Your task to perform on an android device: Go to accessibility settings Image 0: 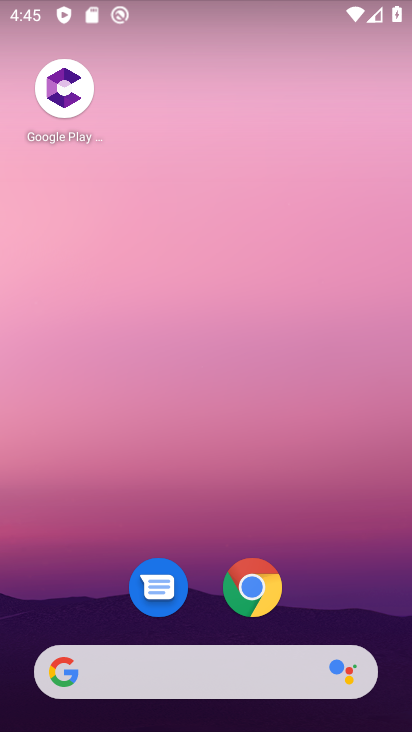
Step 0: drag from (353, 586) to (246, 15)
Your task to perform on an android device: Go to accessibility settings Image 1: 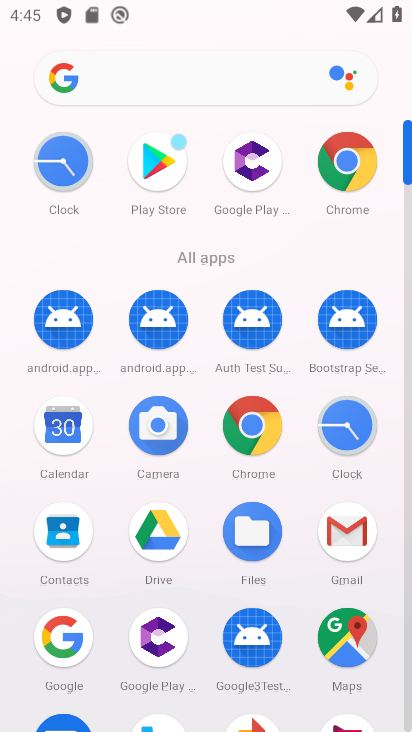
Step 1: drag from (15, 579) to (15, 283)
Your task to perform on an android device: Go to accessibility settings Image 2: 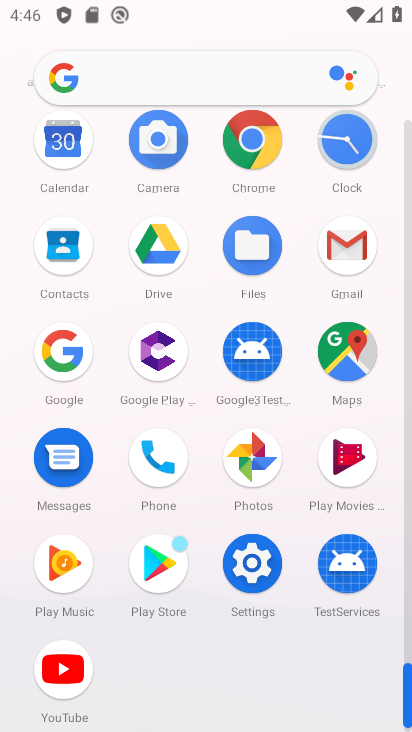
Step 2: click (252, 561)
Your task to perform on an android device: Go to accessibility settings Image 3: 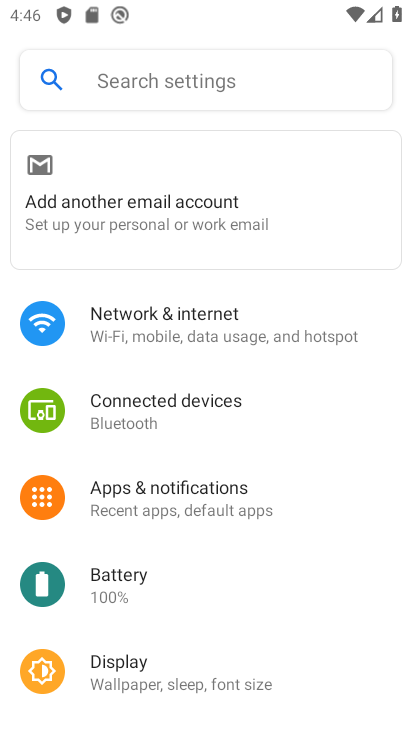
Step 3: drag from (281, 563) to (300, 227)
Your task to perform on an android device: Go to accessibility settings Image 4: 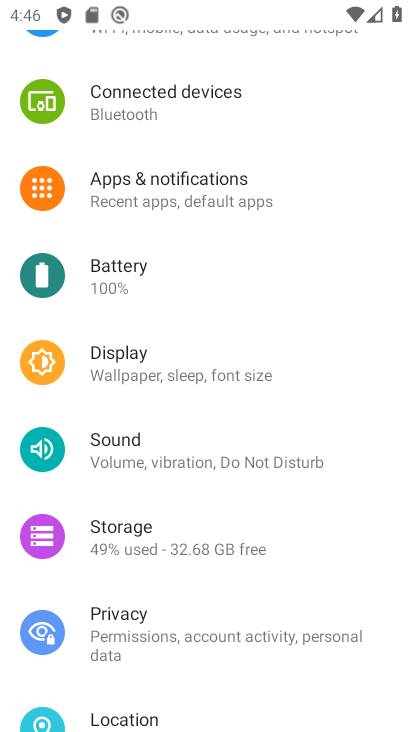
Step 4: drag from (258, 566) to (293, 192)
Your task to perform on an android device: Go to accessibility settings Image 5: 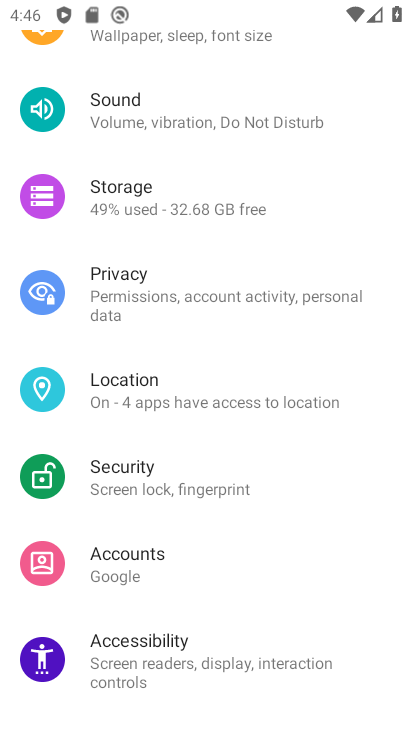
Step 5: drag from (246, 585) to (255, 247)
Your task to perform on an android device: Go to accessibility settings Image 6: 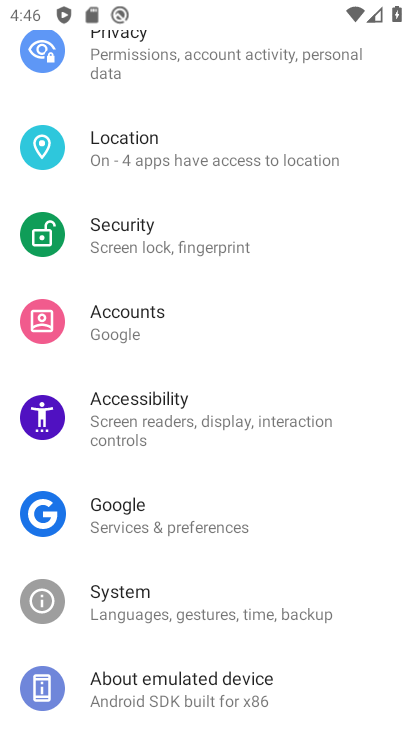
Step 6: click (139, 552)
Your task to perform on an android device: Go to accessibility settings Image 7: 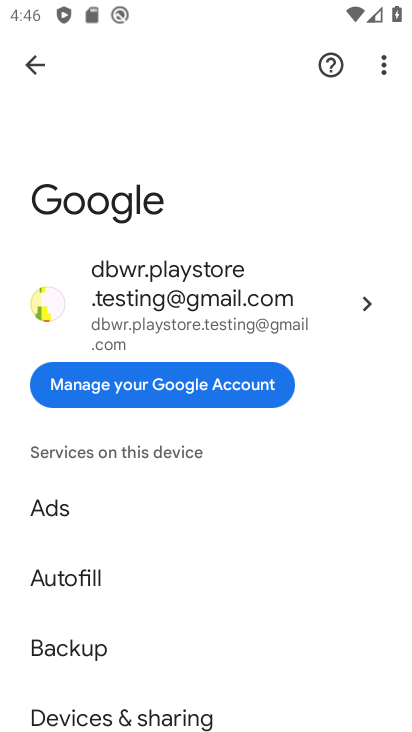
Step 7: press back button
Your task to perform on an android device: Go to accessibility settings Image 8: 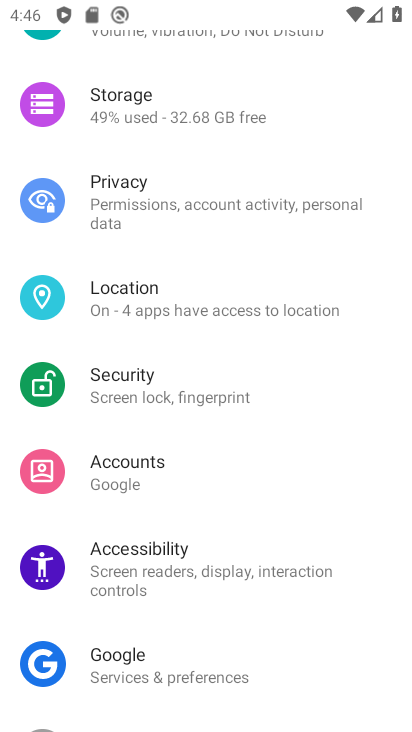
Step 8: drag from (250, 625) to (278, 424)
Your task to perform on an android device: Go to accessibility settings Image 9: 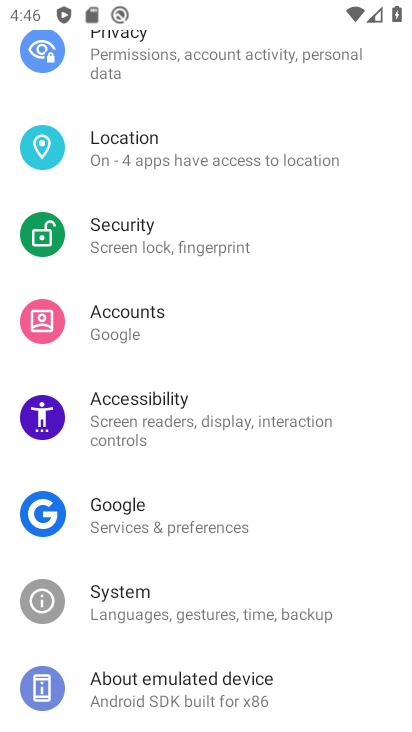
Step 9: click (151, 406)
Your task to perform on an android device: Go to accessibility settings Image 10: 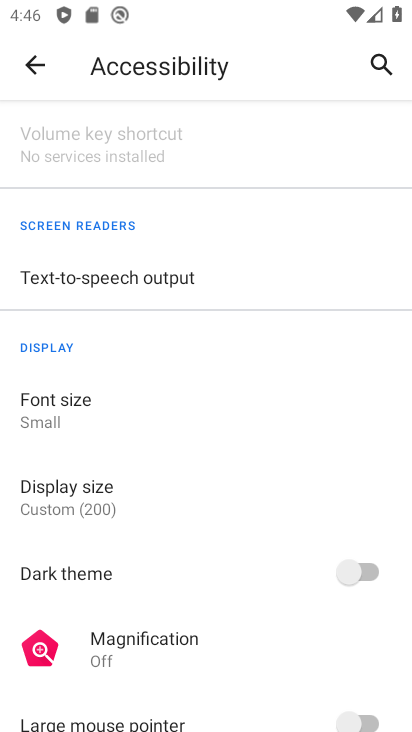
Step 10: task complete